Your task to perform on an android device: remove spam from my inbox in the gmail app Image 0: 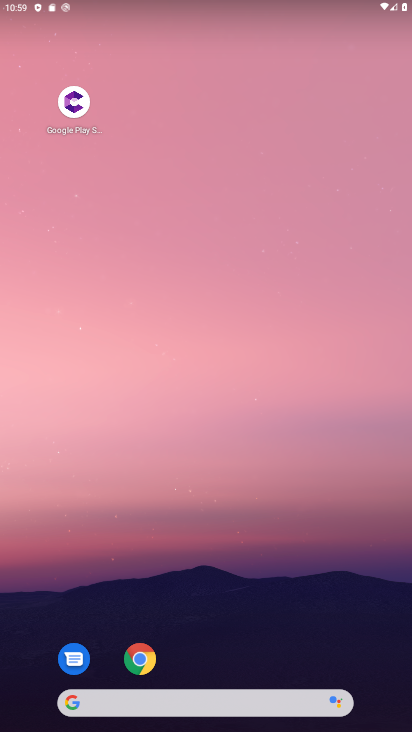
Step 0: click (226, 123)
Your task to perform on an android device: remove spam from my inbox in the gmail app Image 1: 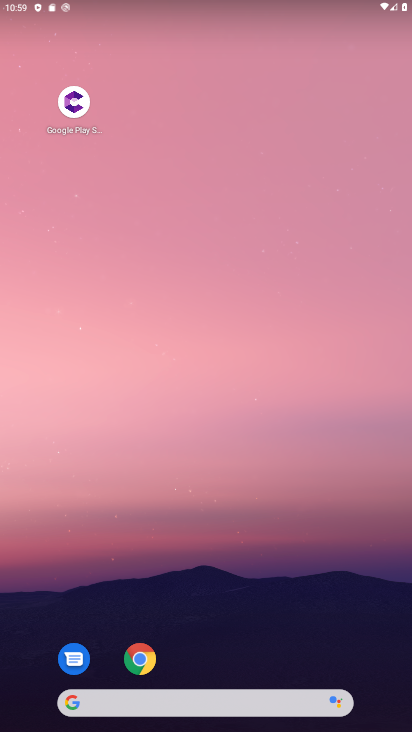
Step 1: drag from (246, 544) to (300, 43)
Your task to perform on an android device: remove spam from my inbox in the gmail app Image 2: 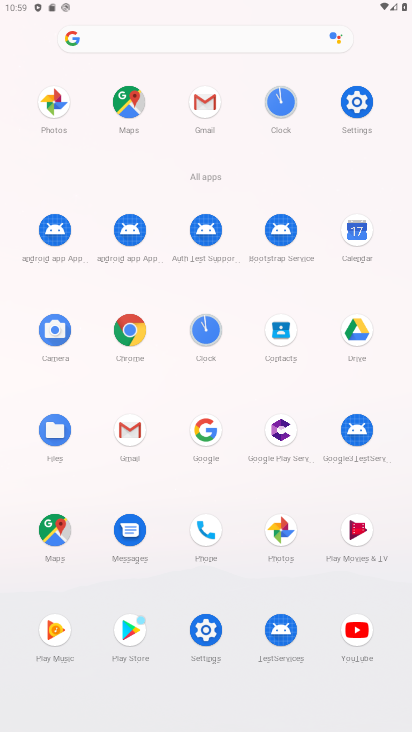
Step 2: click (353, 107)
Your task to perform on an android device: remove spam from my inbox in the gmail app Image 3: 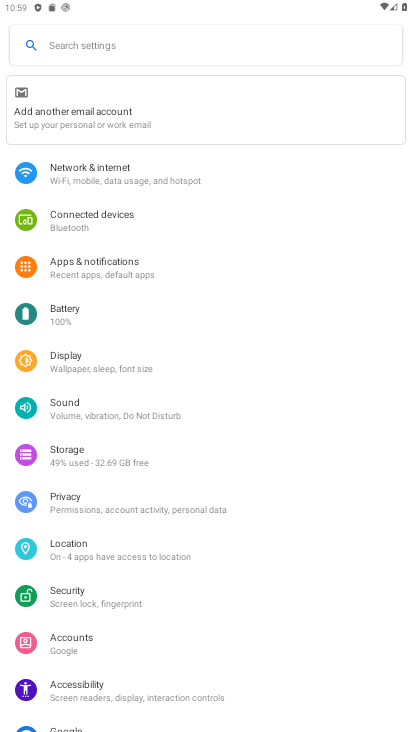
Step 3: click (51, 368)
Your task to perform on an android device: remove spam from my inbox in the gmail app Image 4: 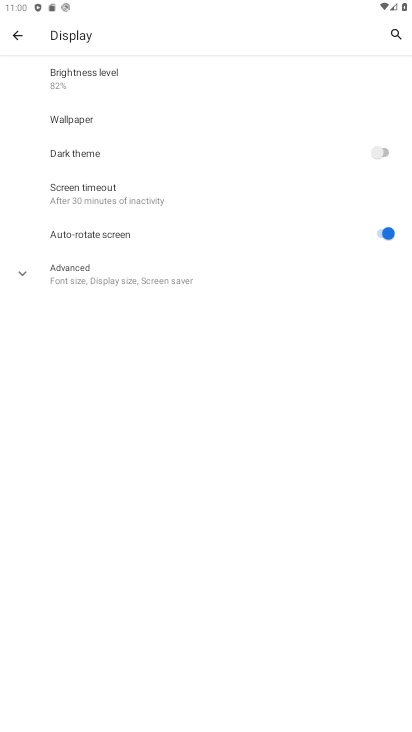
Step 4: click (125, 277)
Your task to perform on an android device: remove spam from my inbox in the gmail app Image 5: 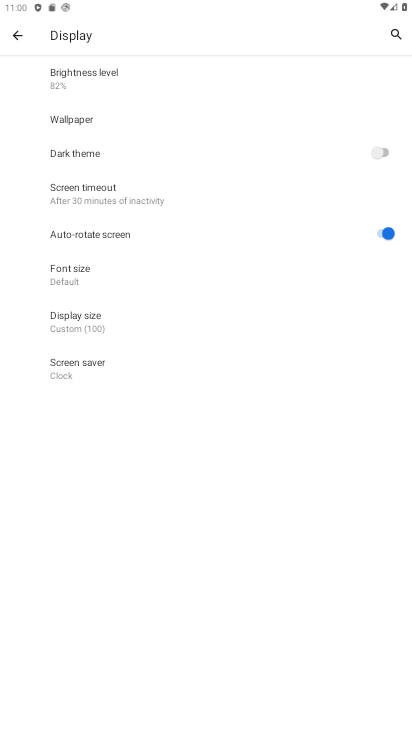
Step 5: click (86, 319)
Your task to perform on an android device: remove spam from my inbox in the gmail app Image 6: 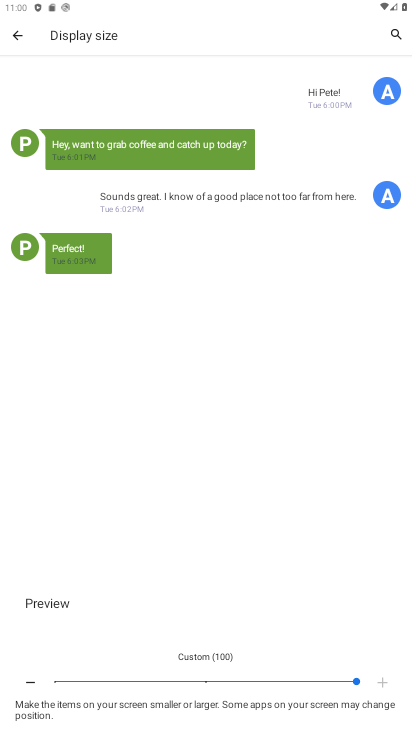
Step 6: click (207, 677)
Your task to perform on an android device: remove spam from my inbox in the gmail app Image 7: 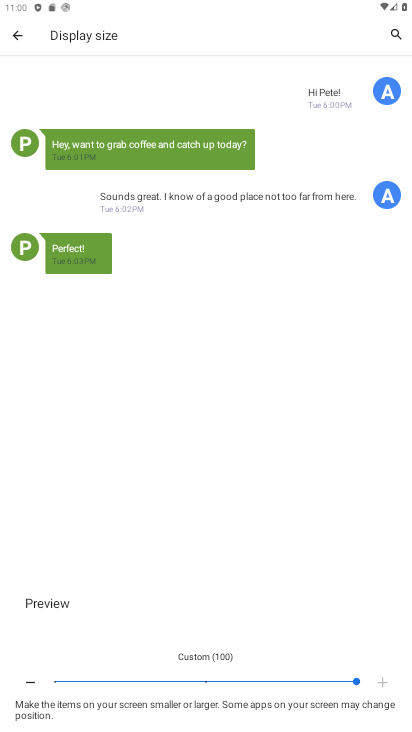
Step 7: click (209, 685)
Your task to perform on an android device: remove spam from my inbox in the gmail app Image 8: 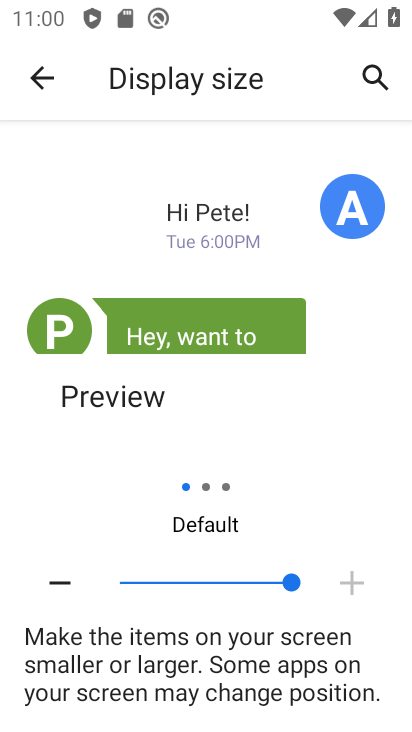
Step 8: click (41, 57)
Your task to perform on an android device: remove spam from my inbox in the gmail app Image 9: 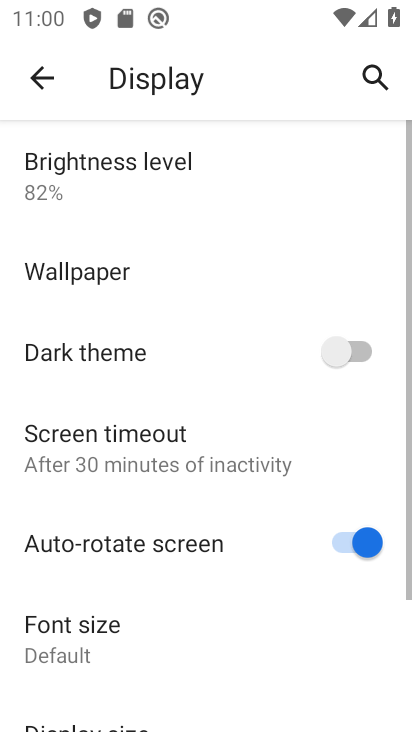
Step 9: click (52, 54)
Your task to perform on an android device: remove spam from my inbox in the gmail app Image 10: 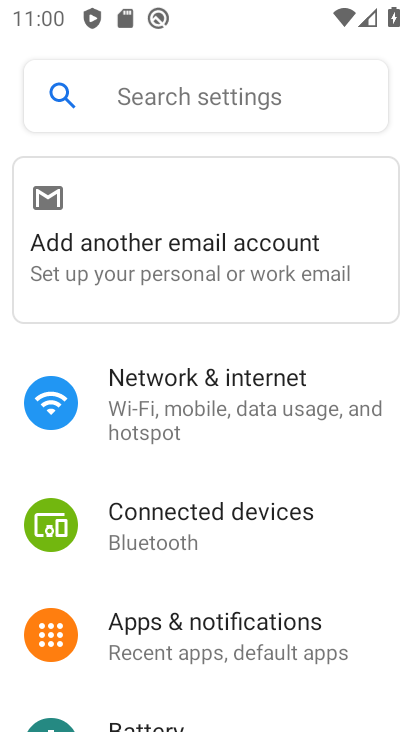
Step 10: press back button
Your task to perform on an android device: remove spam from my inbox in the gmail app Image 11: 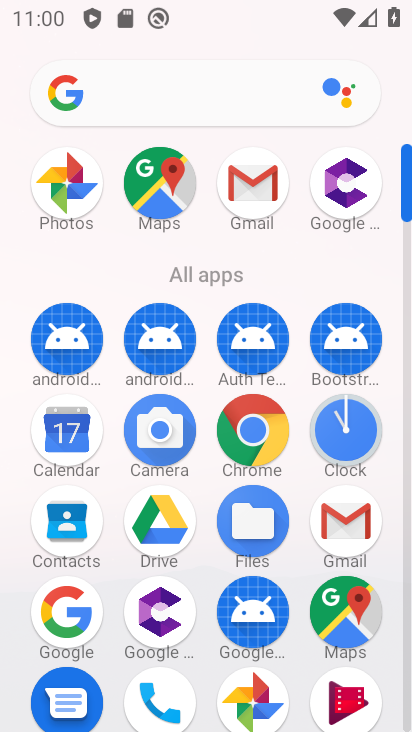
Step 11: click (260, 180)
Your task to perform on an android device: remove spam from my inbox in the gmail app Image 12: 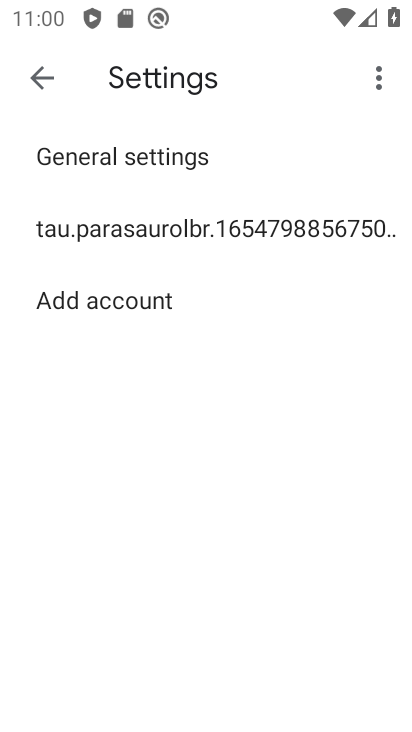
Step 12: click (58, 65)
Your task to perform on an android device: remove spam from my inbox in the gmail app Image 13: 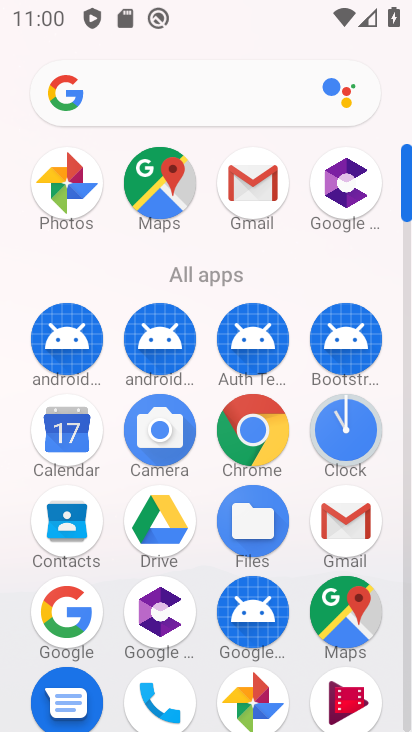
Step 13: click (264, 182)
Your task to perform on an android device: remove spam from my inbox in the gmail app Image 14: 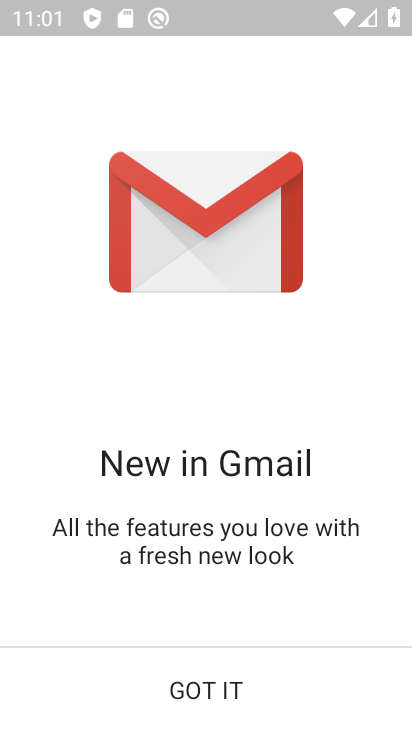
Step 14: click (208, 687)
Your task to perform on an android device: remove spam from my inbox in the gmail app Image 15: 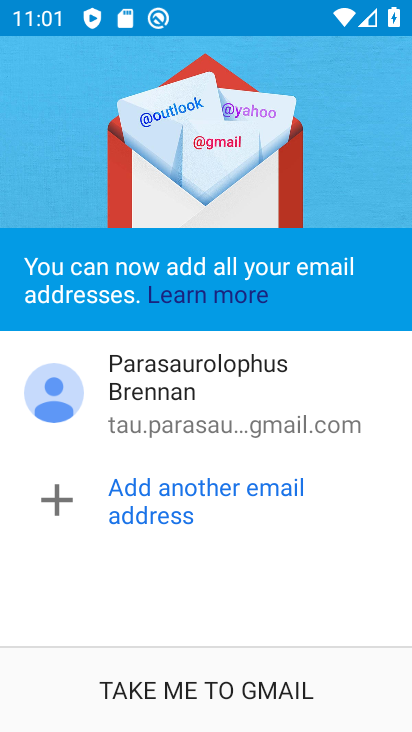
Step 15: click (193, 693)
Your task to perform on an android device: remove spam from my inbox in the gmail app Image 16: 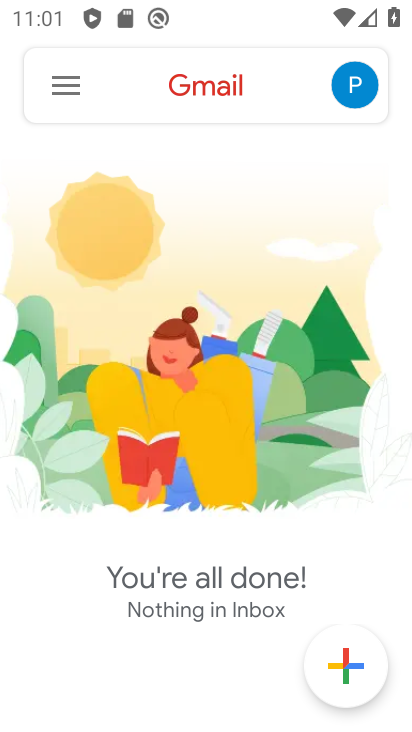
Step 16: click (54, 81)
Your task to perform on an android device: remove spam from my inbox in the gmail app Image 17: 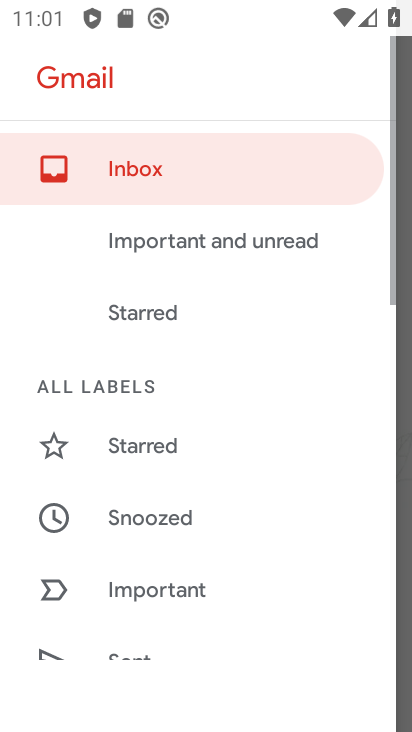
Step 17: drag from (205, 628) to (272, 12)
Your task to perform on an android device: remove spam from my inbox in the gmail app Image 18: 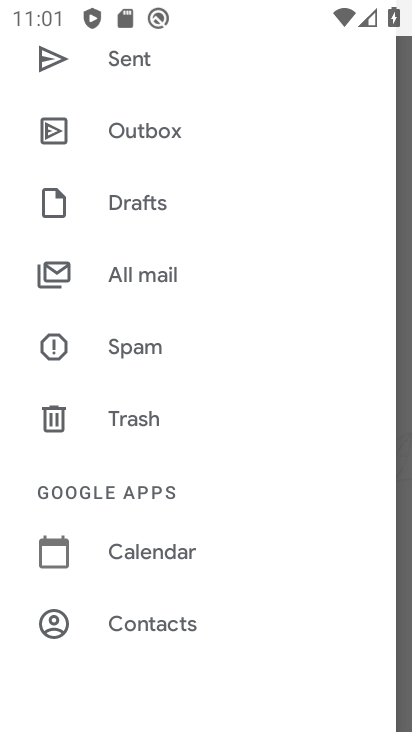
Step 18: click (125, 339)
Your task to perform on an android device: remove spam from my inbox in the gmail app Image 19: 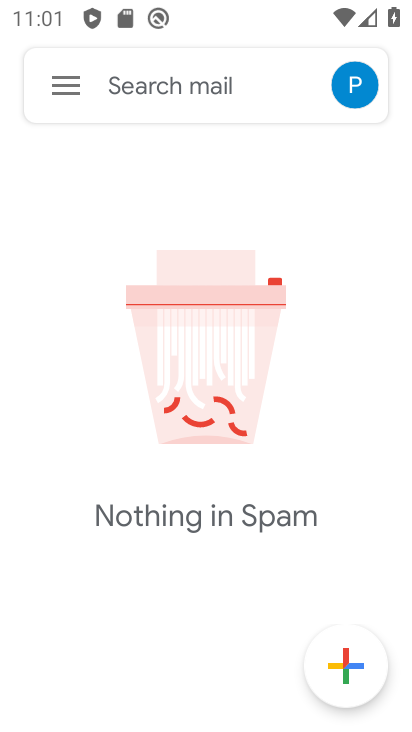
Step 19: task complete